Your task to perform on an android device: open app "Microsoft Outlook" Image 0: 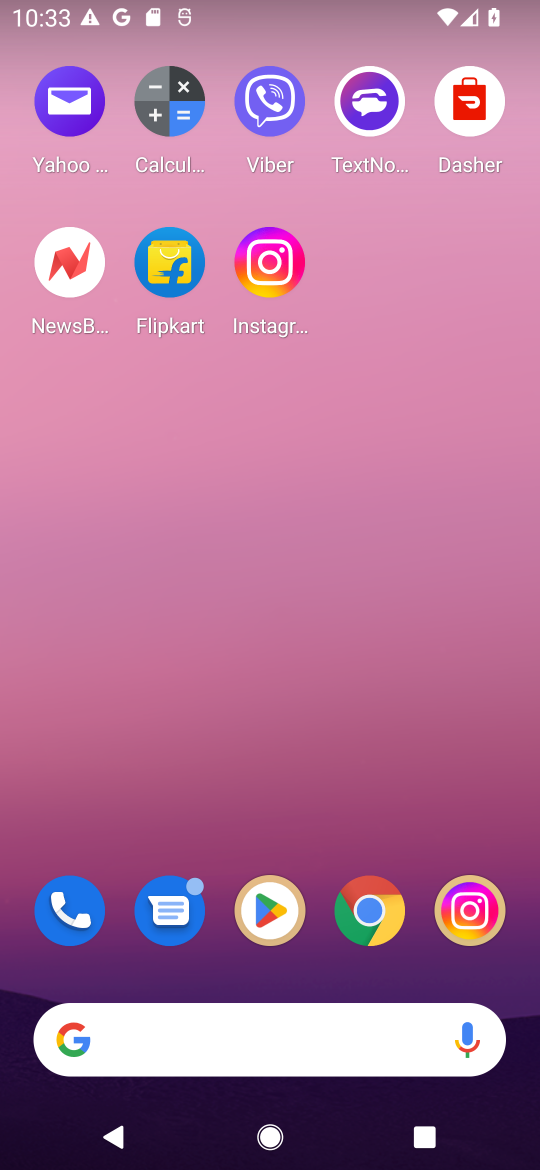
Step 0: click (261, 931)
Your task to perform on an android device: open app "Microsoft Outlook" Image 1: 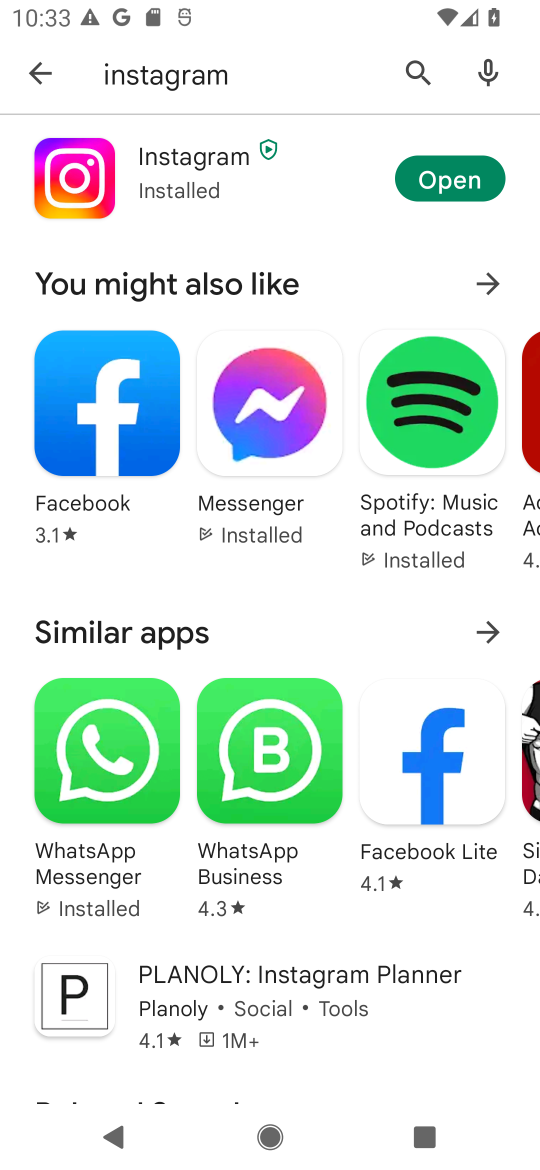
Step 1: click (409, 84)
Your task to perform on an android device: open app "Microsoft Outlook" Image 2: 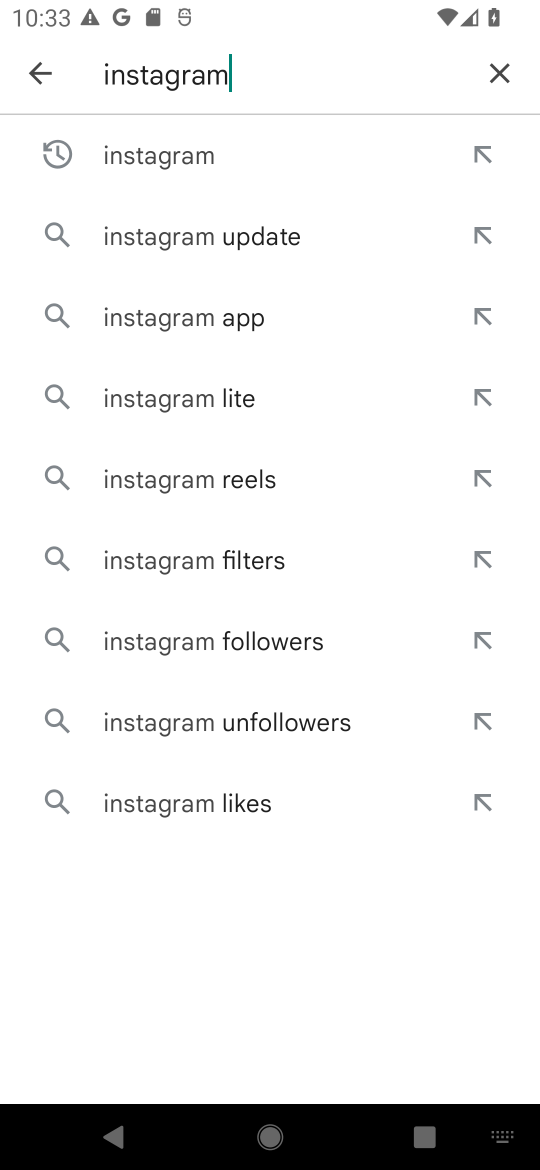
Step 2: click (493, 64)
Your task to perform on an android device: open app "Microsoft Outlook" Image 3: 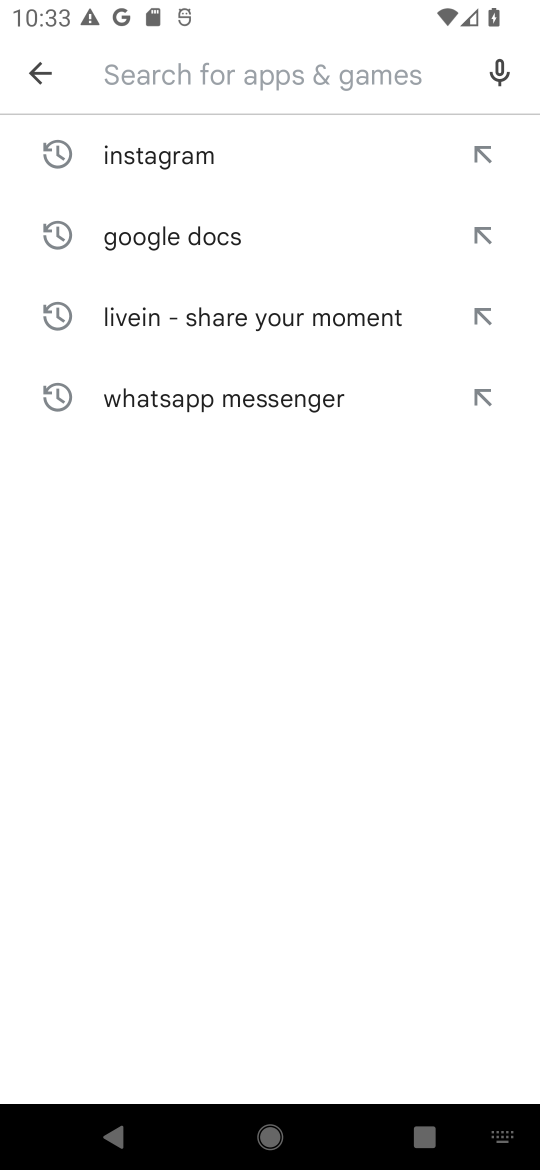
Step 3: type "Microsoft Outlook"
Your task to perform on an android device: open app "Microsoft Outlook" Image 4: 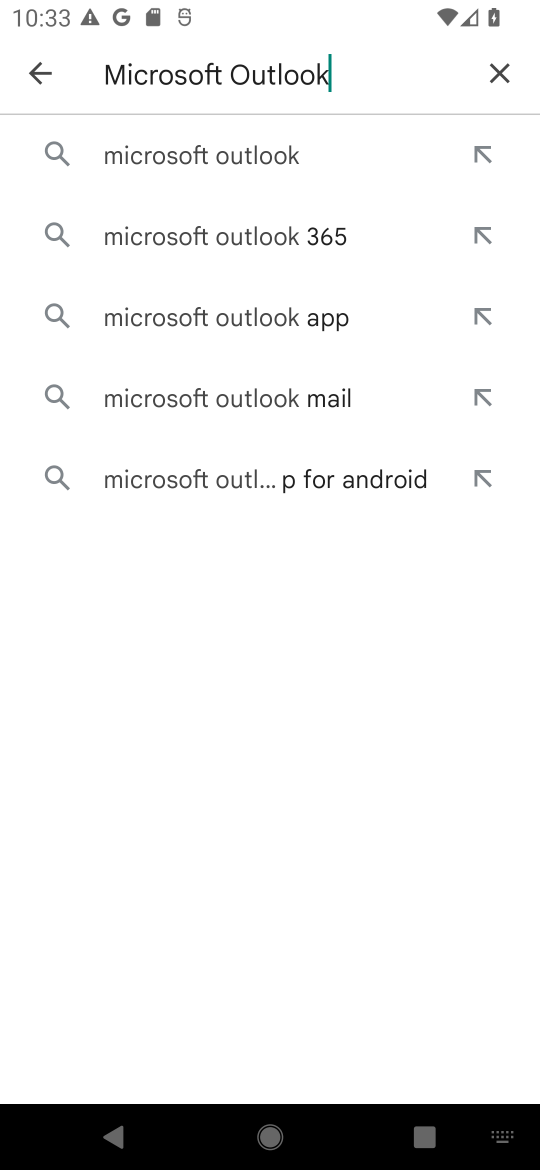
Step 4: click (238, 175)
Your task to perform on an android device: open app "Microsoft Outlook" Image 5: 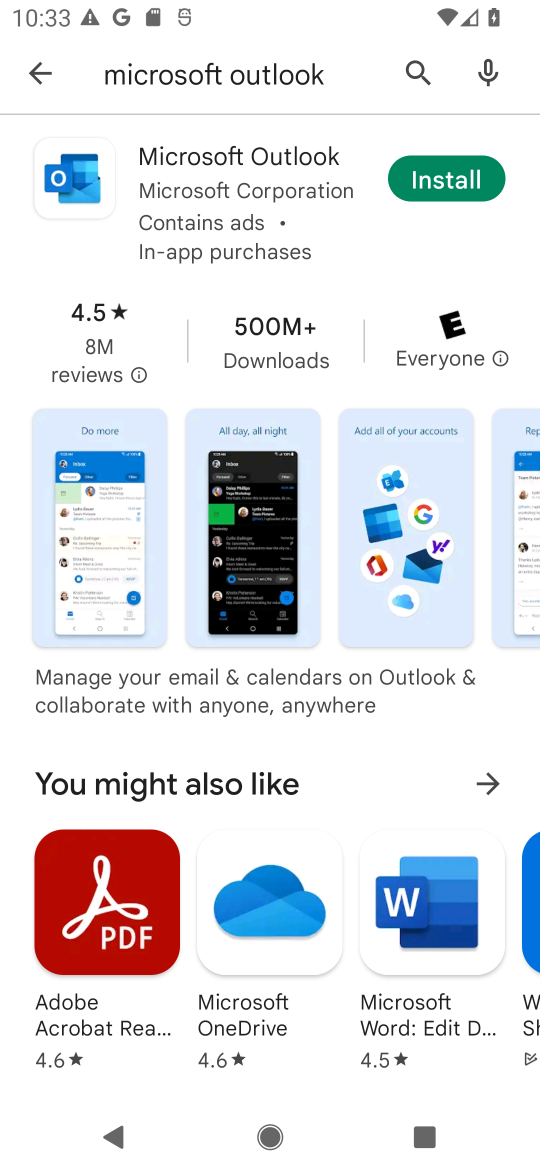
Step 5: task complete